Your task to perform on an android device: see sites visited before in the chrome app Image 0: 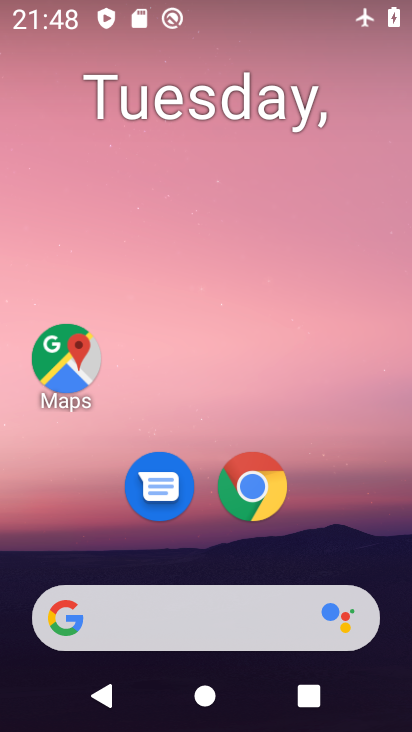
Step 0: press home button
Your task to perform on an android device: see sites visited before in the chrome app Image 1: 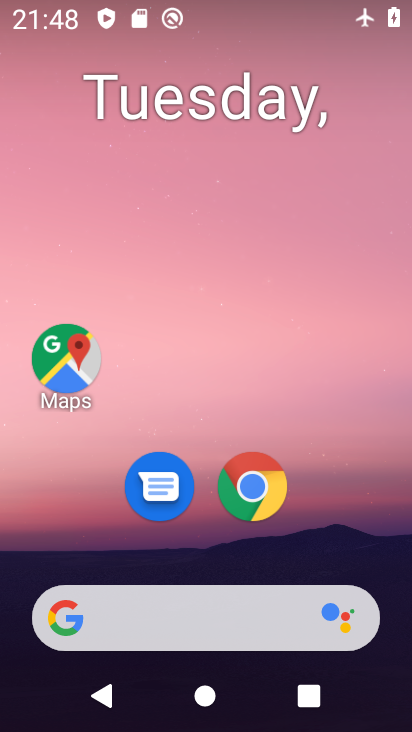
Step 1: drag from (365, 538) to (355, 215)
Your task to perform on an android device: see sites visited before in the chrome app Image 2: 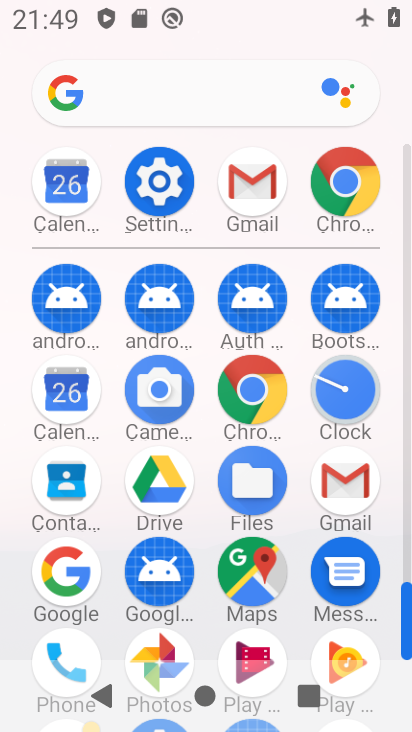
Step 2: click (251, 397)
Your task to perform on an android device: see sites visited before in the chrome app Image 3: 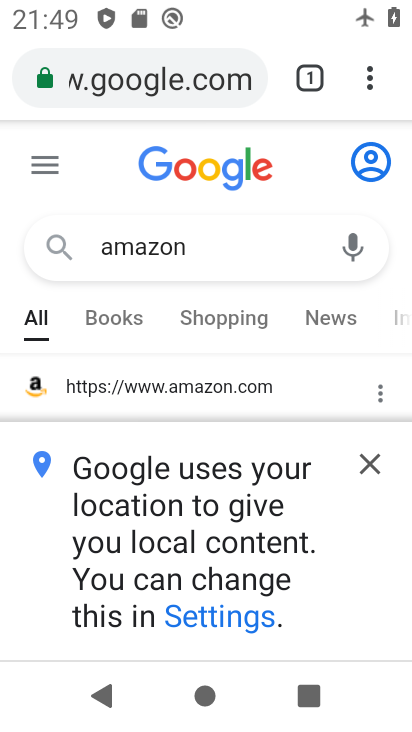
Step 3: click (366, 84)
Your task to perform on an android device: see sites visited before in the chrome app Image 4: 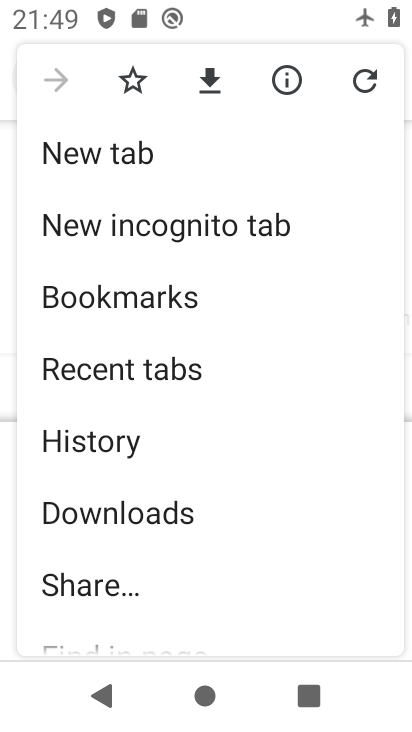
Step 4: click (156, 442)
Your task to perform on an android device: see sites visited before in the chrome app Image 5: 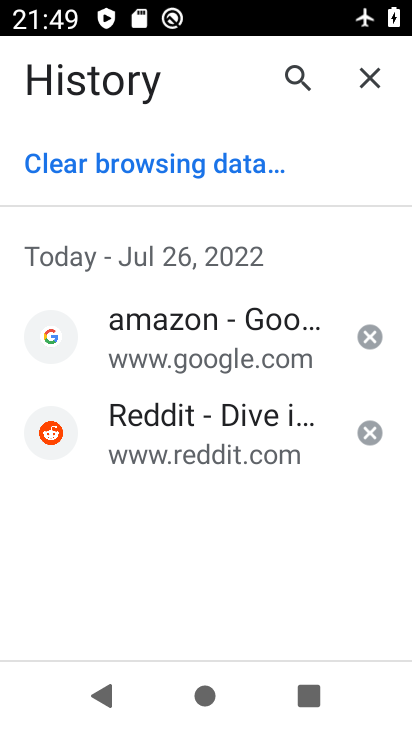
Step 5: task complete